Your task to perform on an android device: turn on translation in the chrome app Image 0: 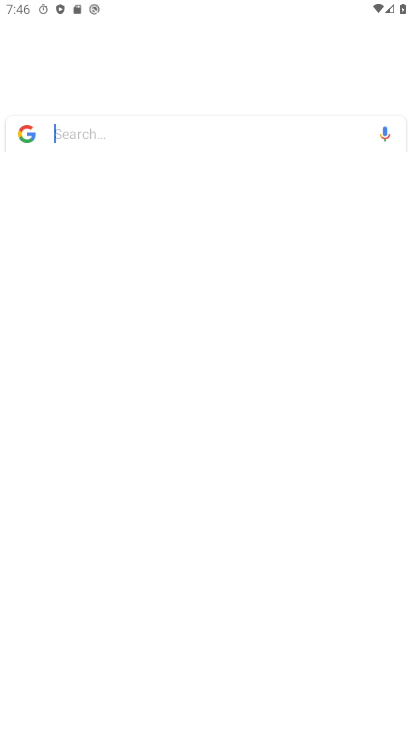
Step 0: drag from (80, 607) to (272, 224)
Your task to perform on an android device: turn on translation in the chrome app Image 1: 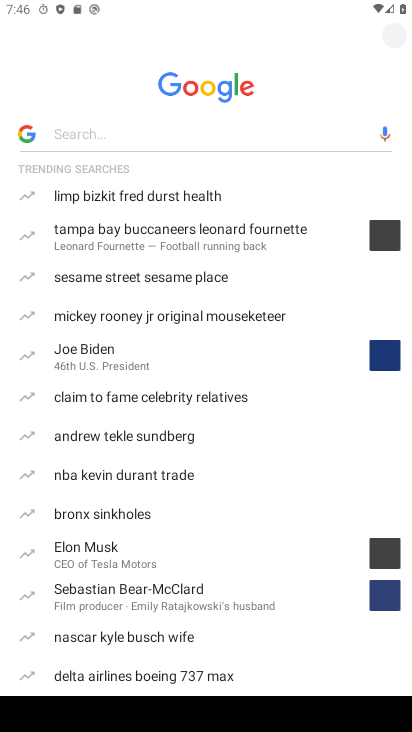
Step 1: press home button
Your task to perform on an android device: turn on translation in the chrome app Image 2: 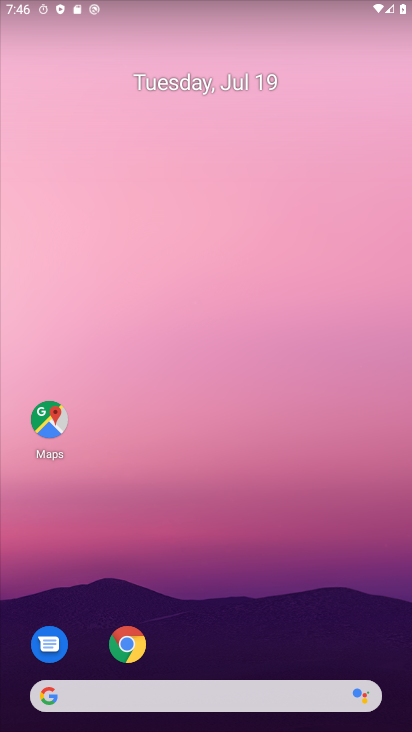
Step 2: click (131, 642)
Your task to perform on an android device: turn on translation in the chrome app Image 3: 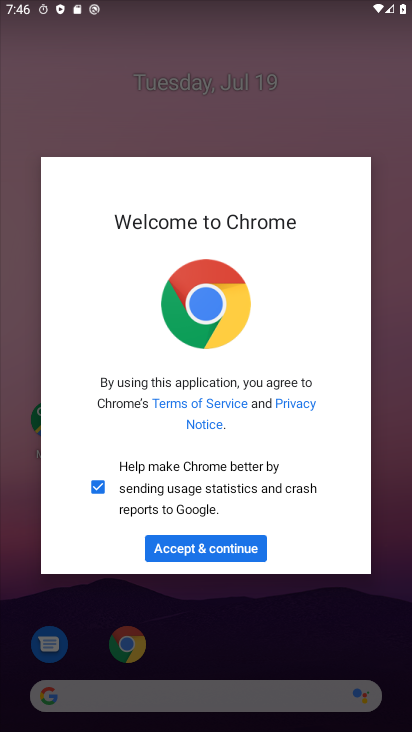
Step 3: click (177, 544)
Your task to perform on an android device: turn on translation in the chrome app Image 4: 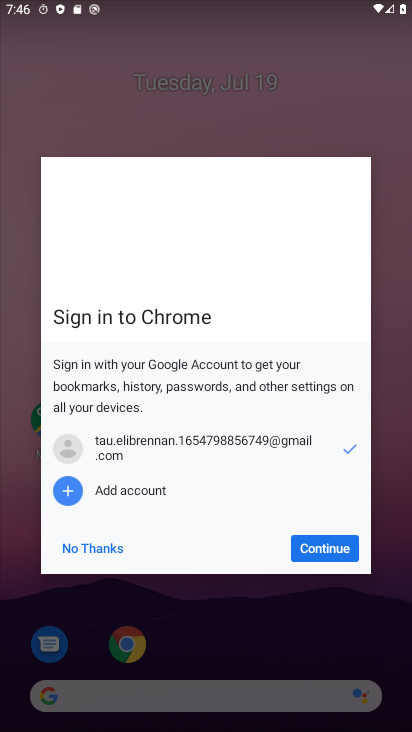
Step 4: click (332, 547)
Your task to perform on an android device: turn on translation in the chrome app Image 5: 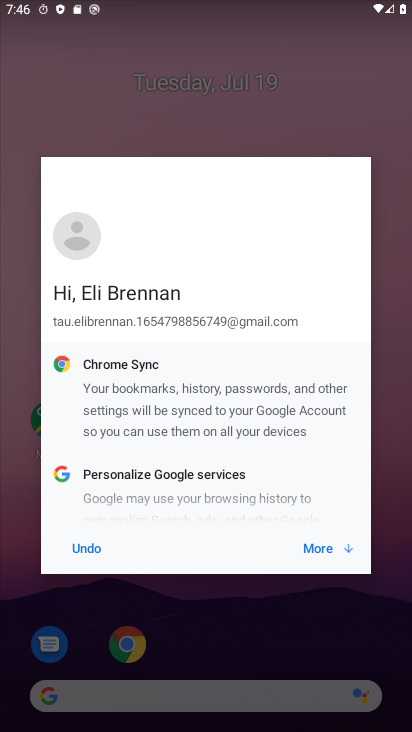
Step 5: click (325, 549)
Your task to perform on an android device: turn on translation in the chrome app Image 6: 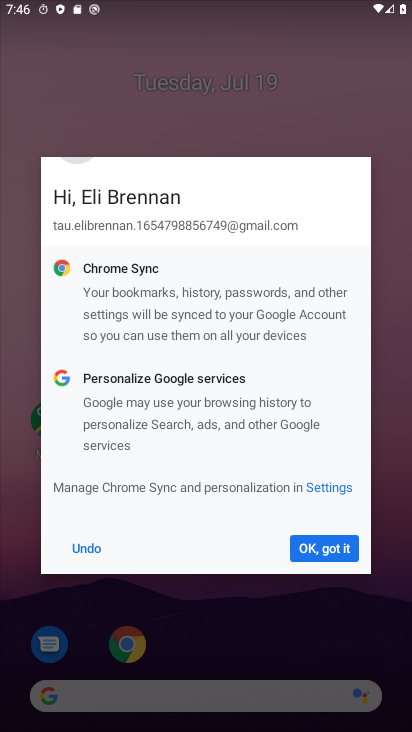
Step 6: click (332, 542)
Your task to perform on an android device: turn on translation in the chrome app Image 7: 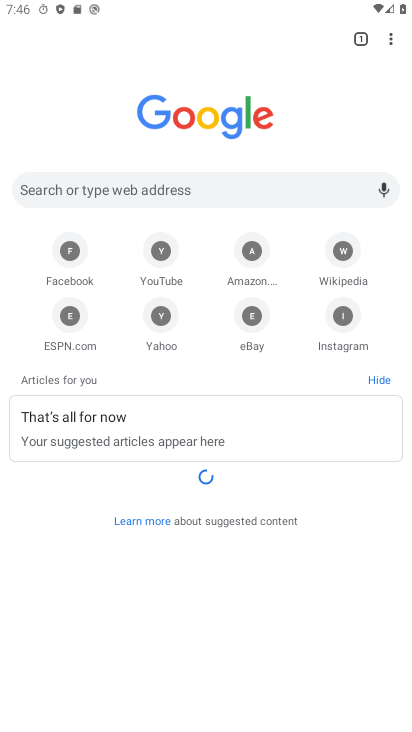
Step 7: click (390, 37)
Your task to perform on an android device: turn on translation in the chrome app Image 8: 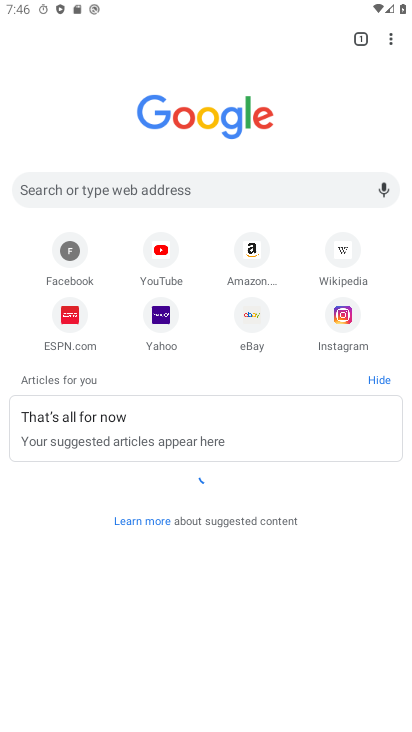
Step 8: click (392, 38)
Your task to perform on an android device: turn on translation in the chrome app Image 9: 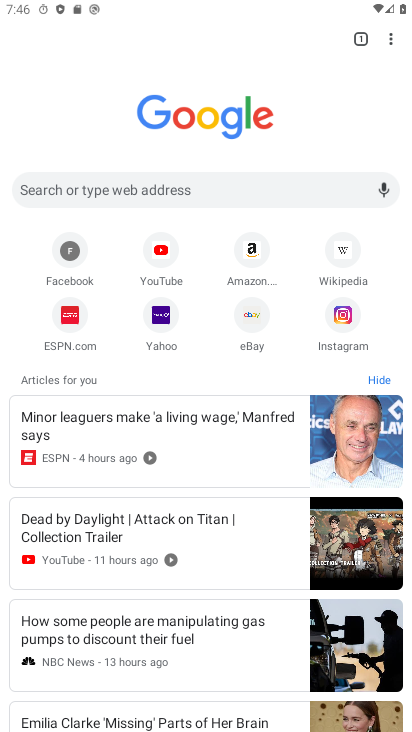
Step 9: click (393, 36)
Your task to perform on an android device: turn on translation in the chrome app Image 10: 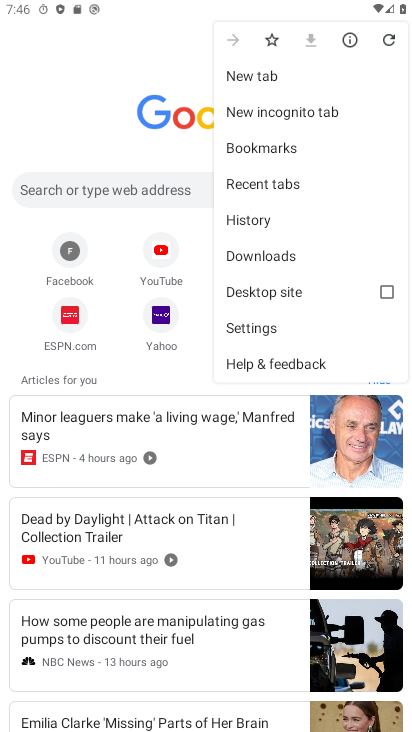
Step 10: click (252, 331)
Your task to perform on an android device: turn on translation in the chrome app Image 11: 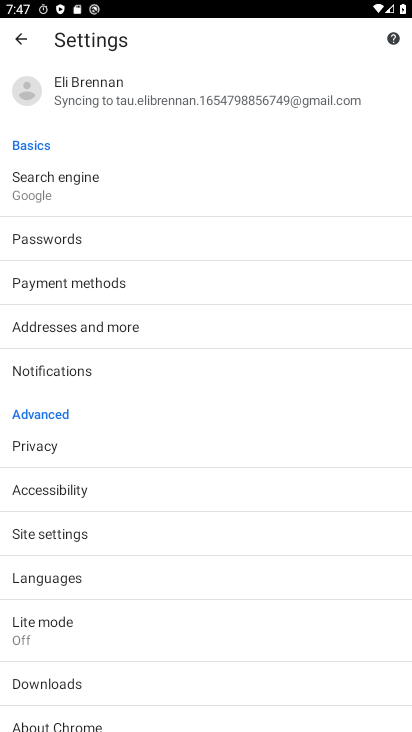
Step 11: drag from (327, 229) to (380, 80)
Your task to perform on an android device: turn on translation in the chrome app Image 12: 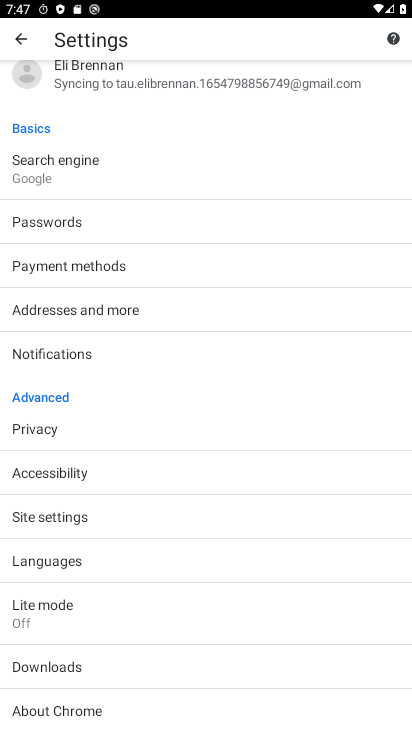
Step 12: click (54, 555)
Your task to perform on an android device: turn on translation in the chrome app Image 13: 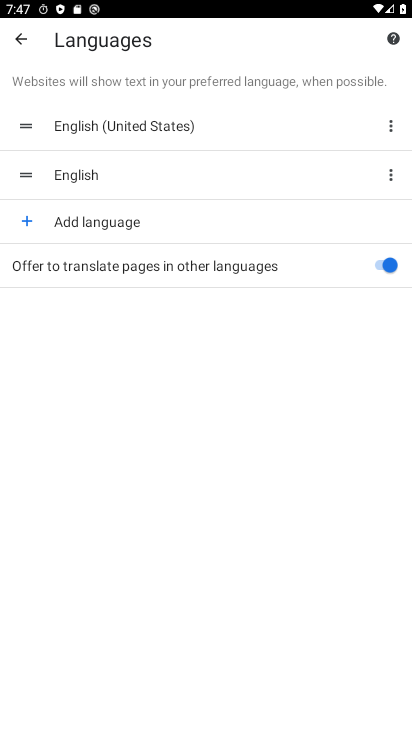
Step 13: task complete